Your task to perform on an android device: add a label to a message in the gmail app Image 0: 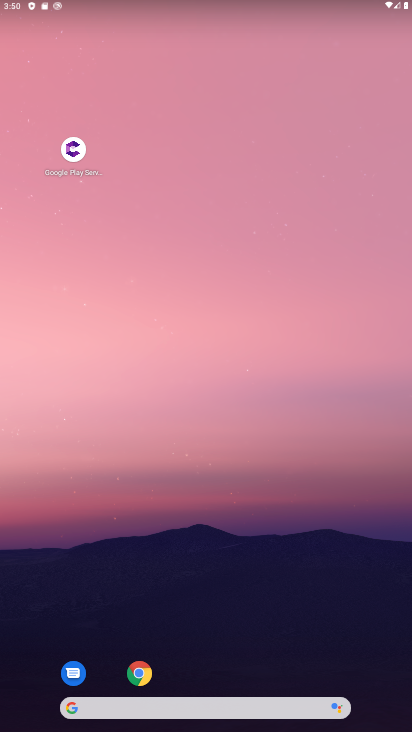
Step 0: drag from (299, 629) to (266, 73)
Your task to perform on an android device: add a label to a message in the gmail app Image 1: 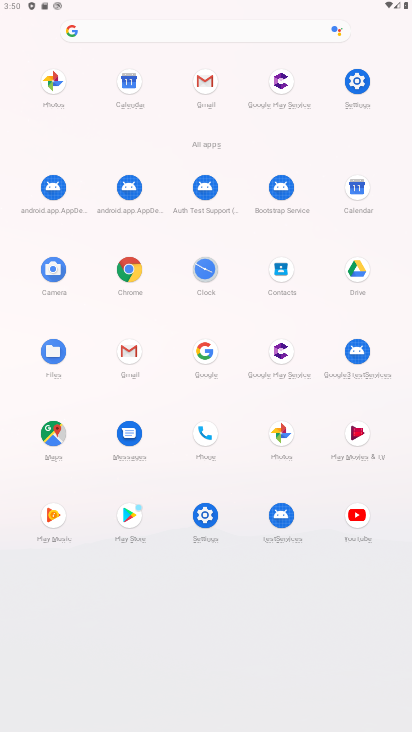
Step 1: click (213, 79)
Your task to perform on an android device: add a label to a message in the gmail app Image 2: 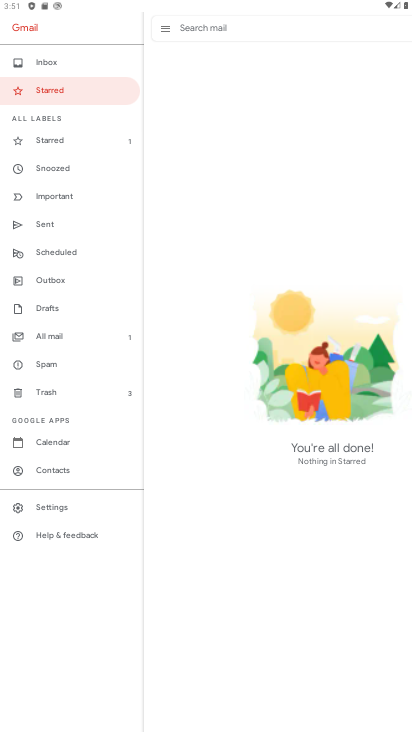
Step 2: task complete